Your task to perform on an android device: toggle priority inbox in the gmail app Image 0: 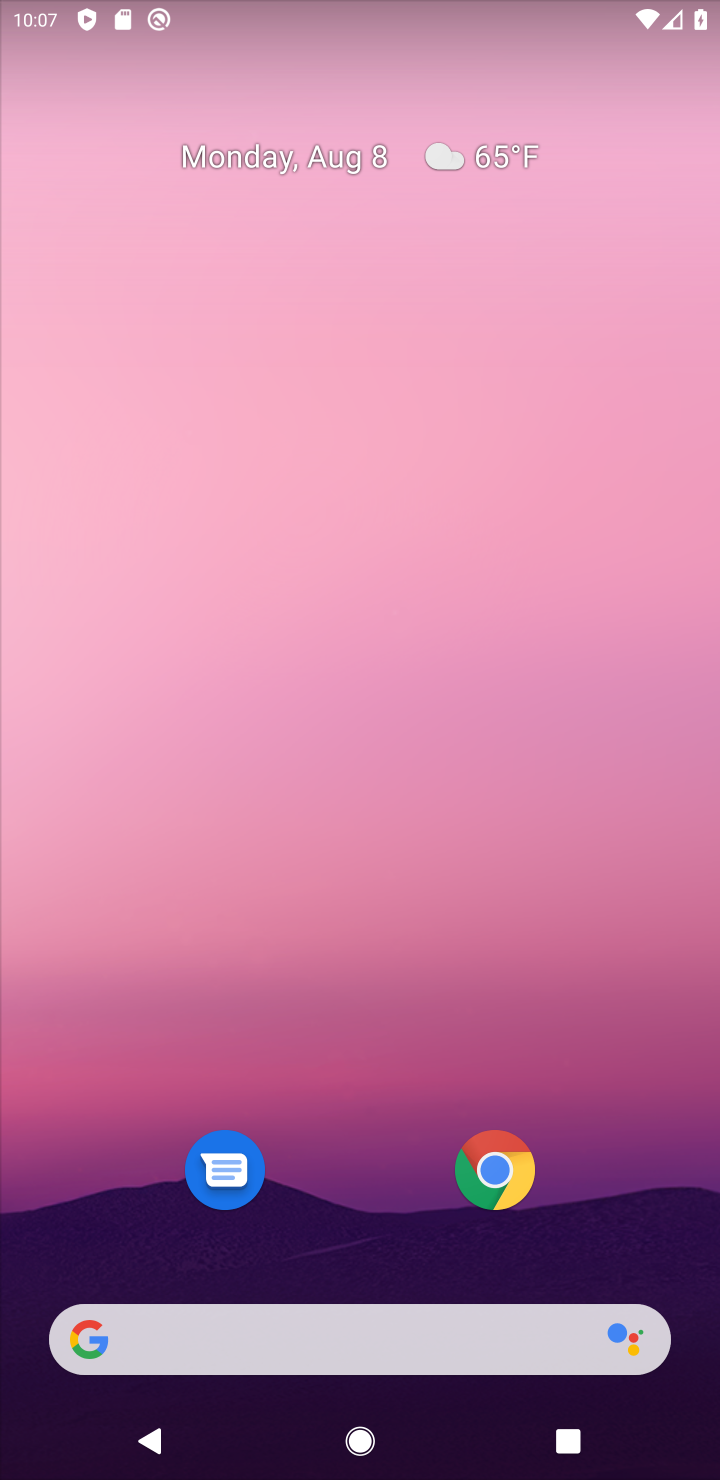
Step 0: press home button
Your task to perform on an android device: toggle priority inbox in the gmail app Image 1: 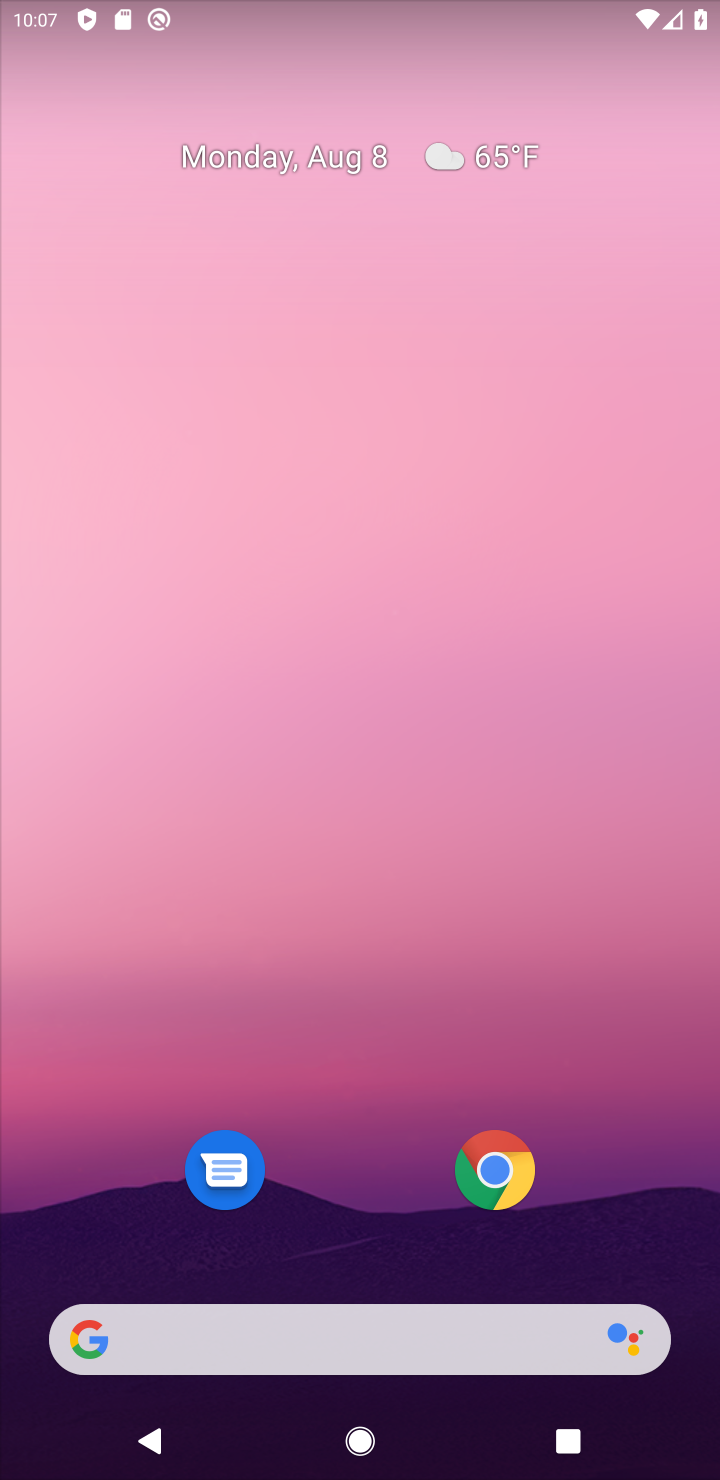
Step 1: drag from (333, 1268) to (250, 297)
Your task to perform on an android device: toggle priority inbox in the gmail app Image 2: 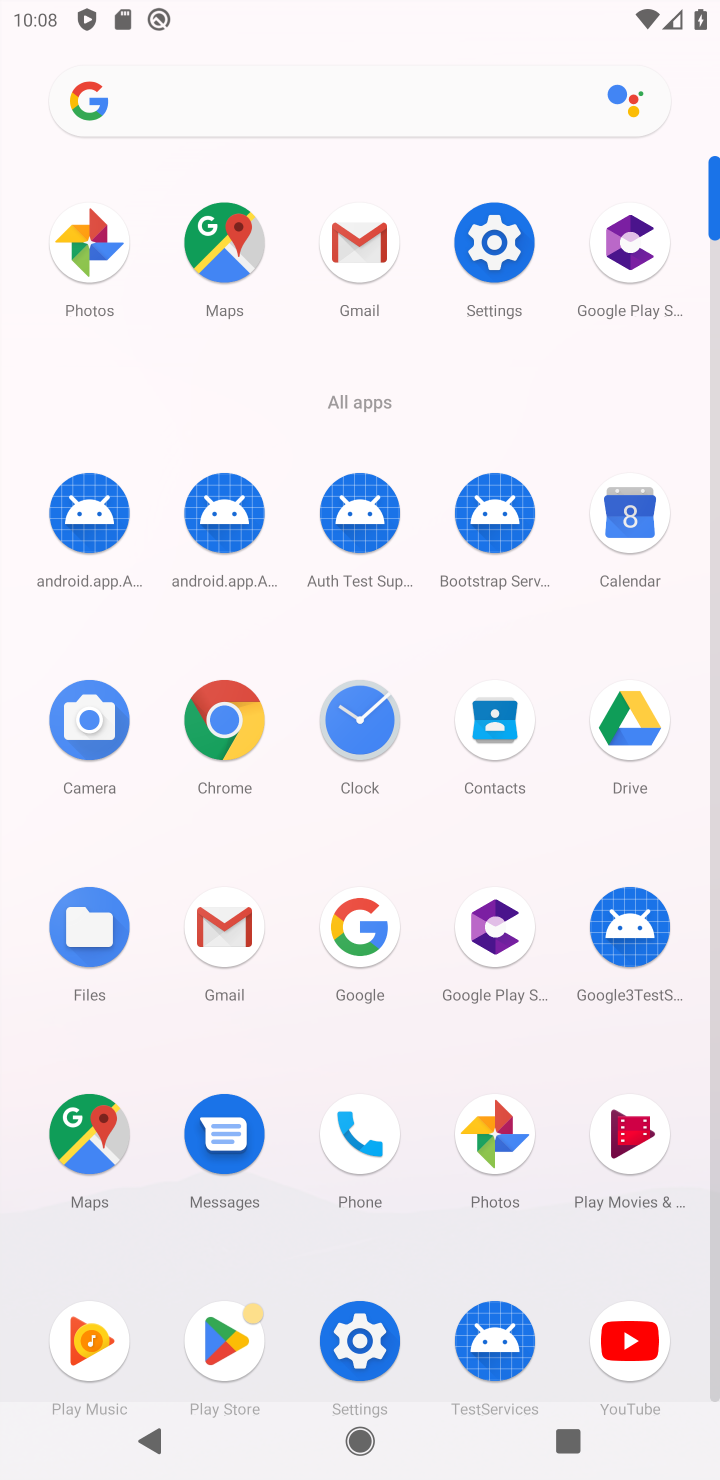
Step 2: click (369, 240)
Your task to perform on an android device: toggle priority inbox in the gmail app Image 3: 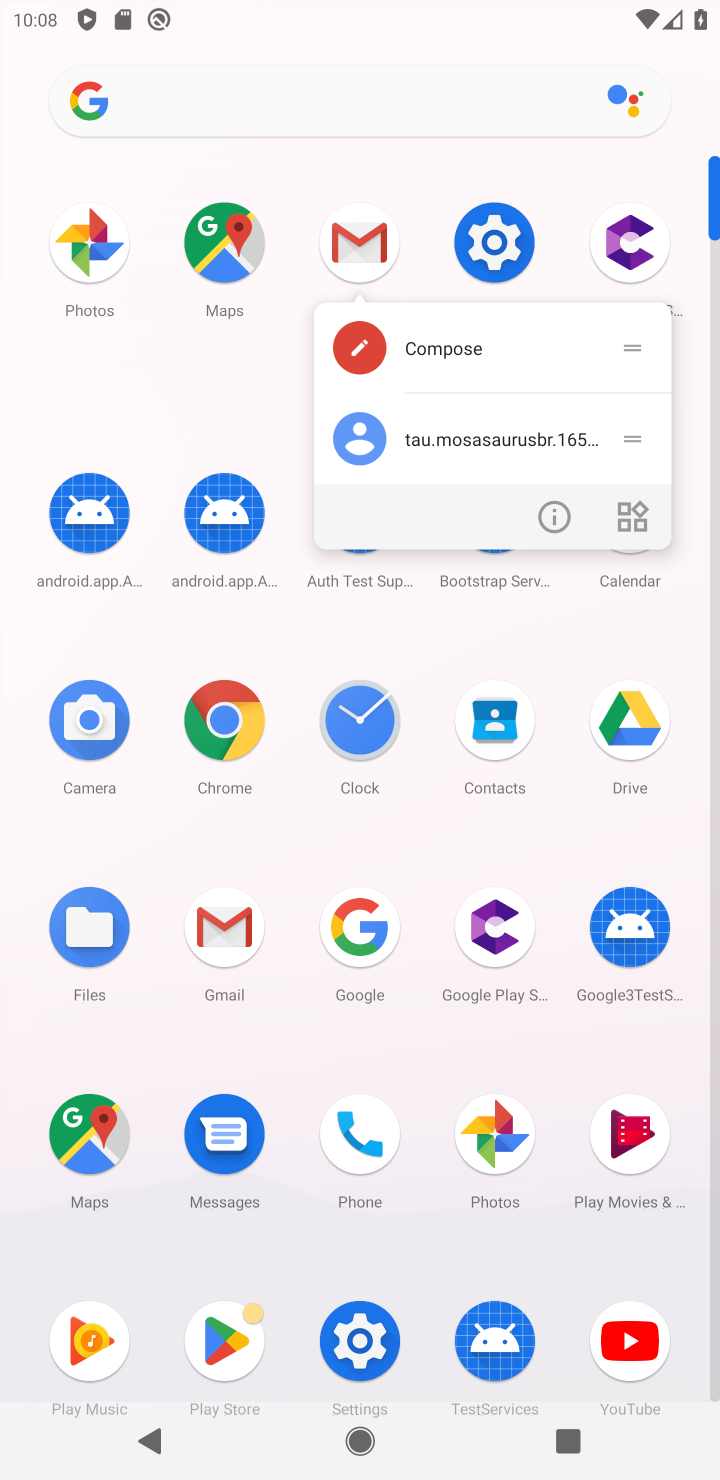
Step 3: click (357, 232)
Your task to perform on an android device: toggle priority inbox in the gmail app Image 4: 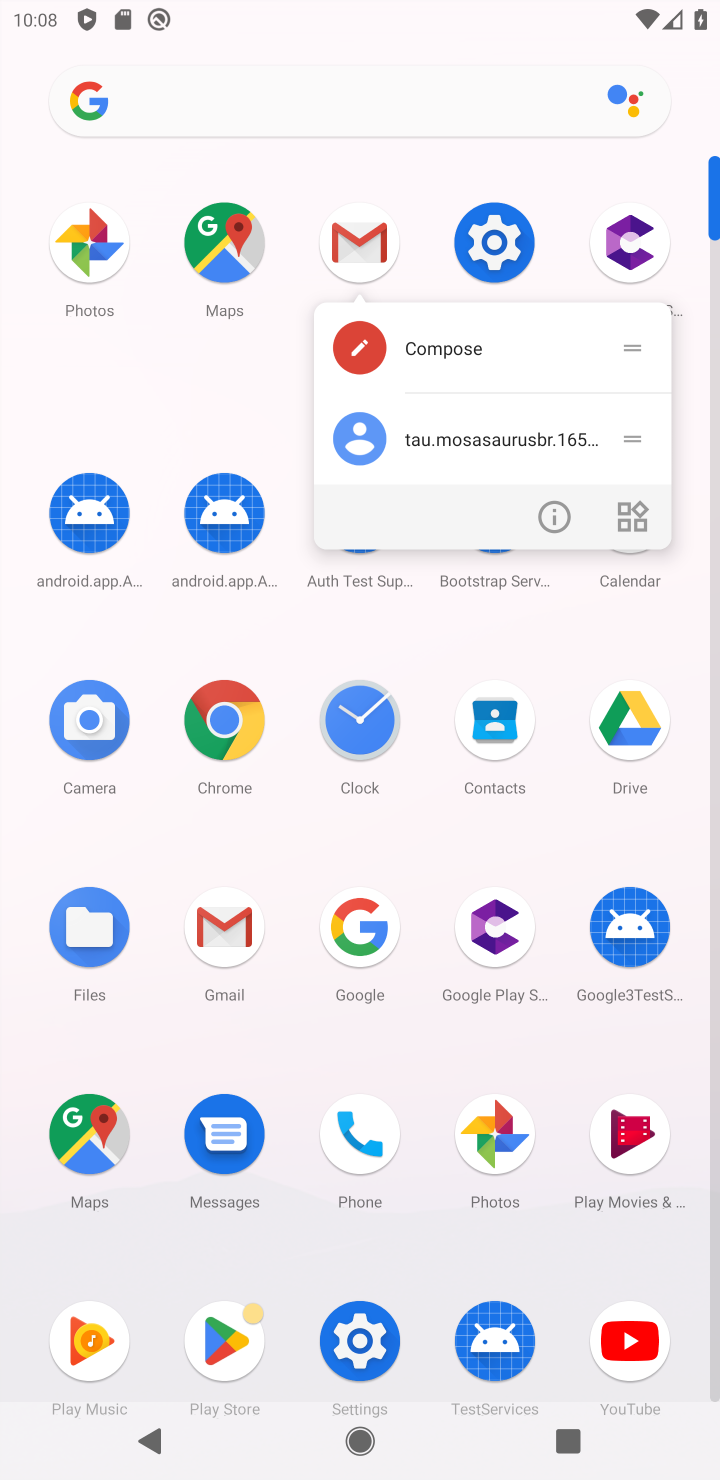
Step 4: click (351, 236)
Your task to perform on an android device: toggle priority inbox in the gmail app Image 5: 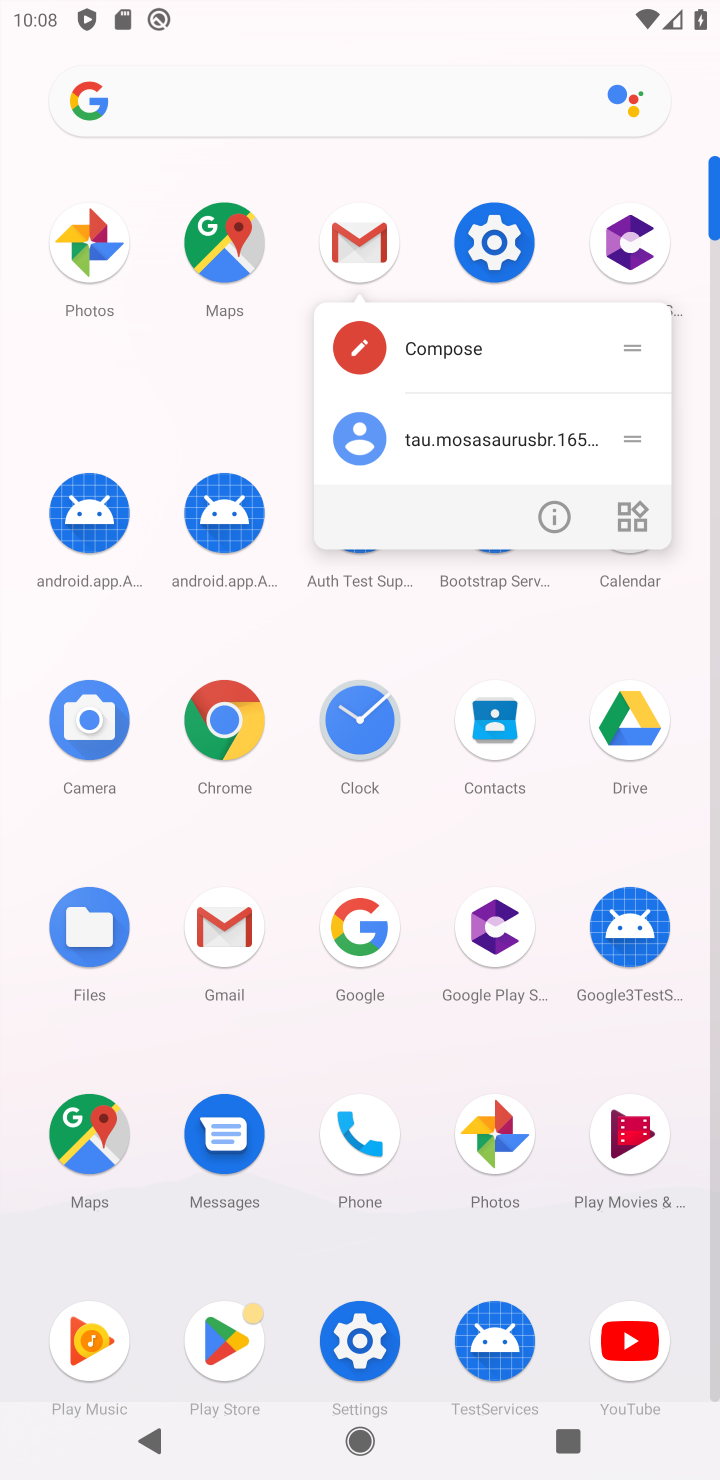
Step 5: click (204, 954)
Your task to perform on an android device: toggle priority inbox in the gmail app Image 6: 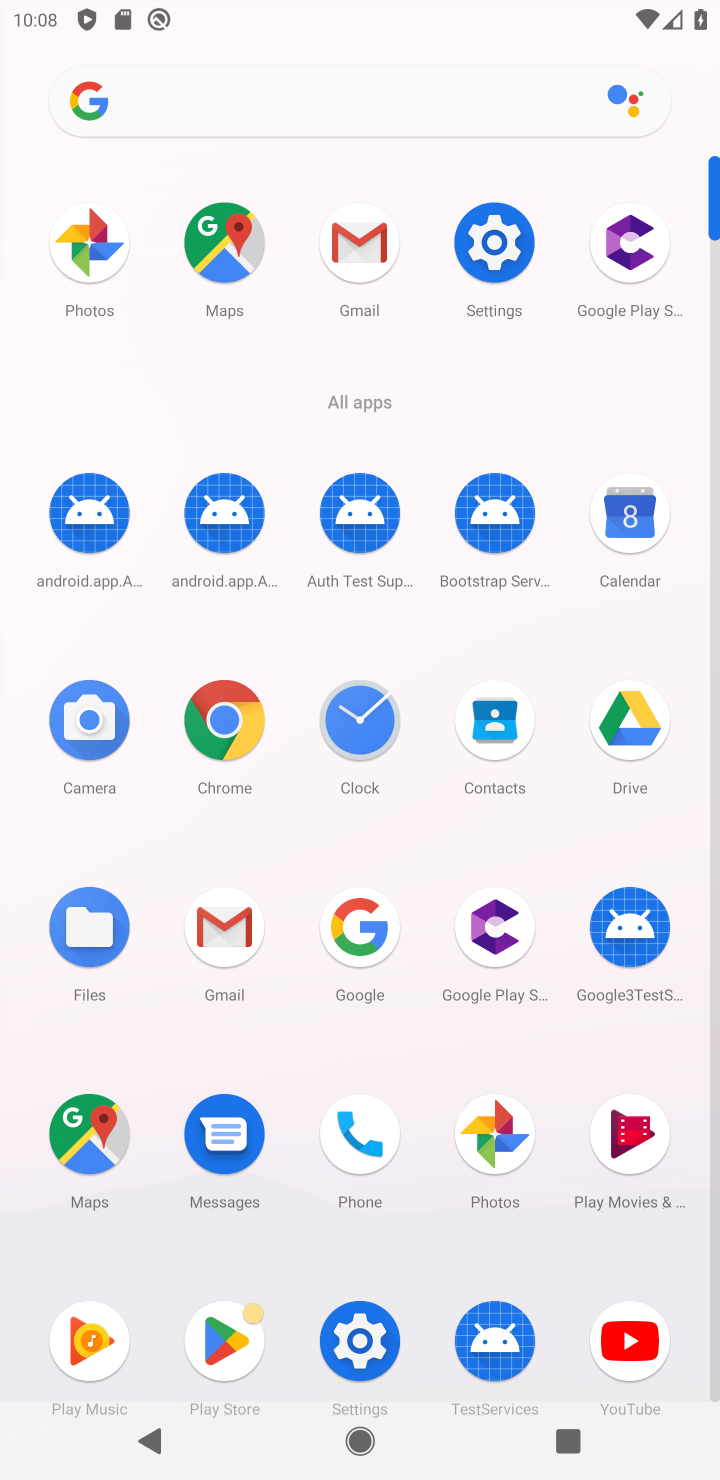
Step 6: click (240, 915)
Your task to perform on an android device: toggle priority inbox in the gmail app Image 7: 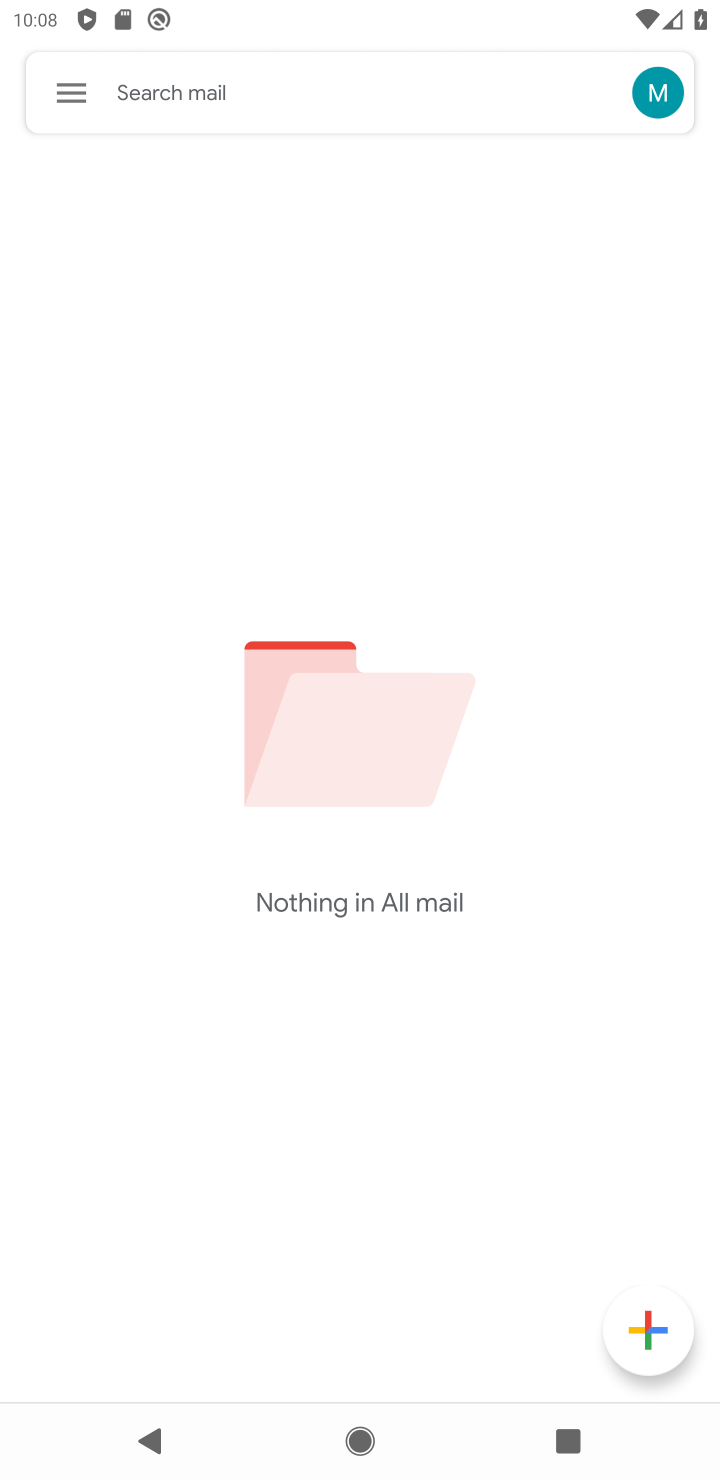
Step 7: click (84, 78)
Your task to perform on an android device: toggle priority inbox in the gmail app Image 8: 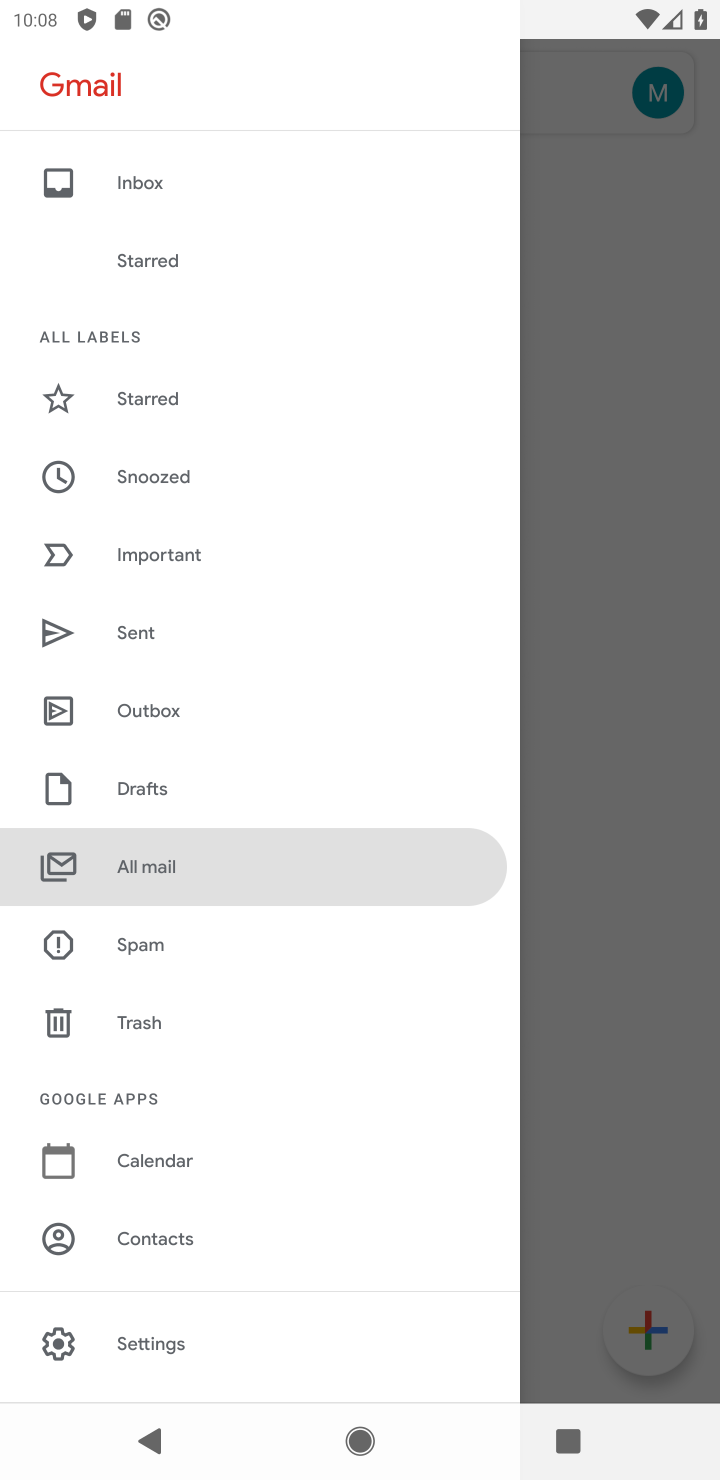
Step 8: click (146, 1346)
Your task to perform on an android device: toggle priority inbox in the gmail app Image 9: 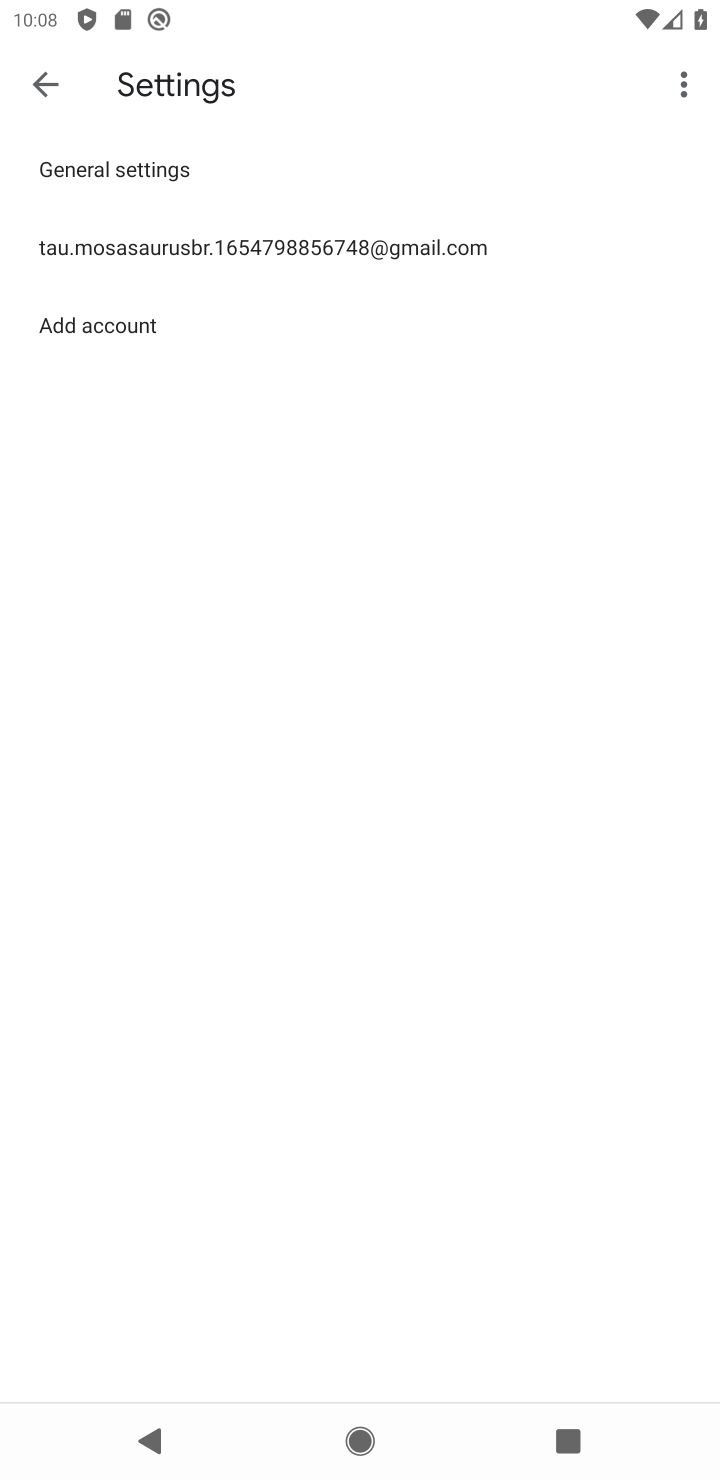
Step 9: click (193, 245)
Your task to perform on an android device: toggle priority inbox in the gmail app Image 10: 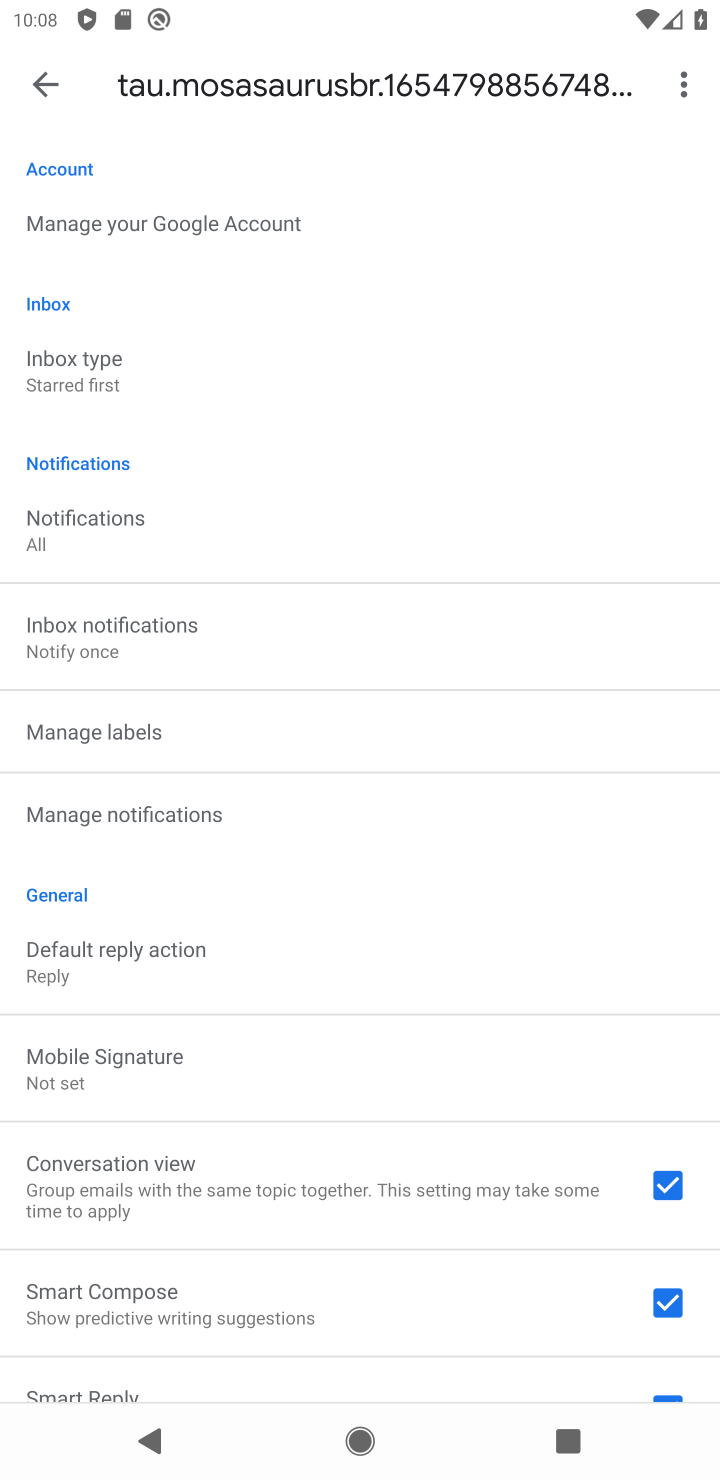
Step 10: click (104, 369)
Your task to perform on an android device: toggle priority inbox in the gmail app Image 11: 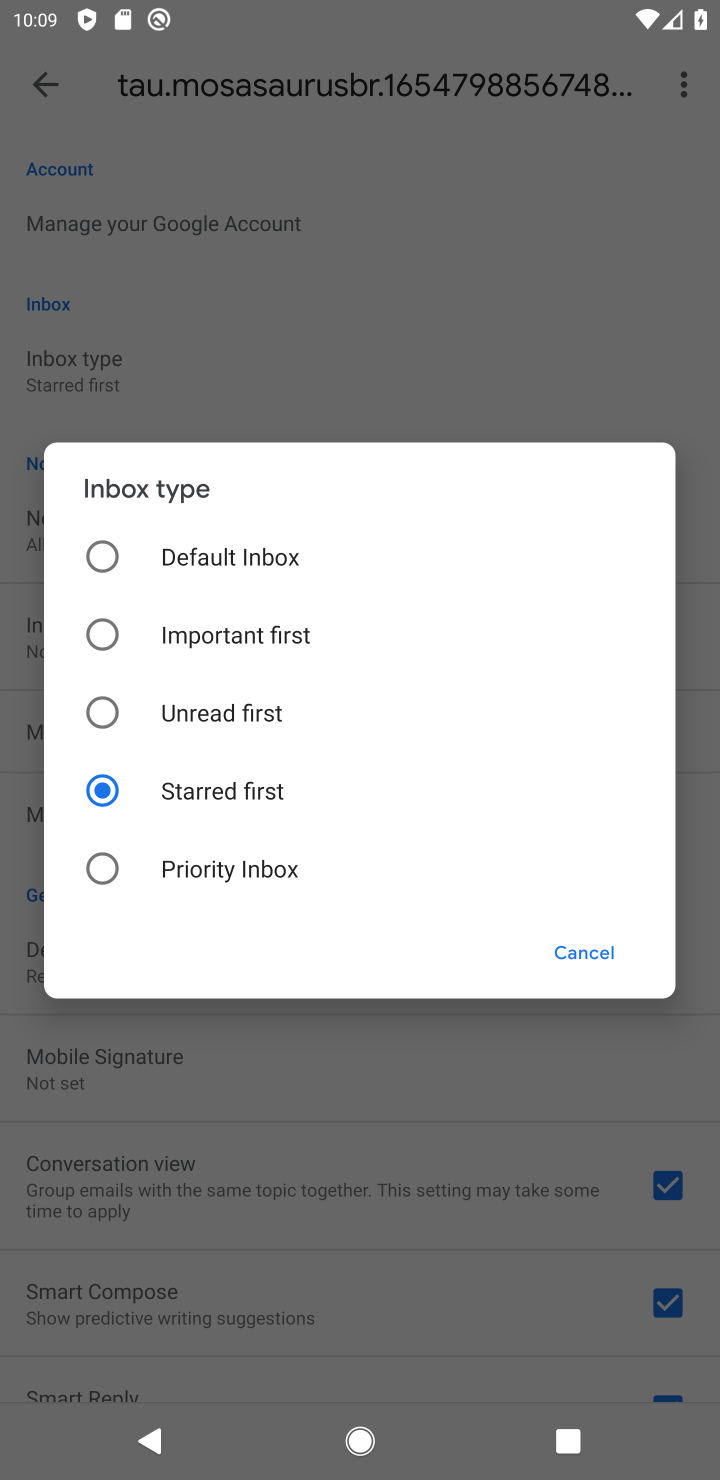
Step 11: click (106, 873)
Your task to perform on an android device: toggle priority inbox in the gmail app Image 12: 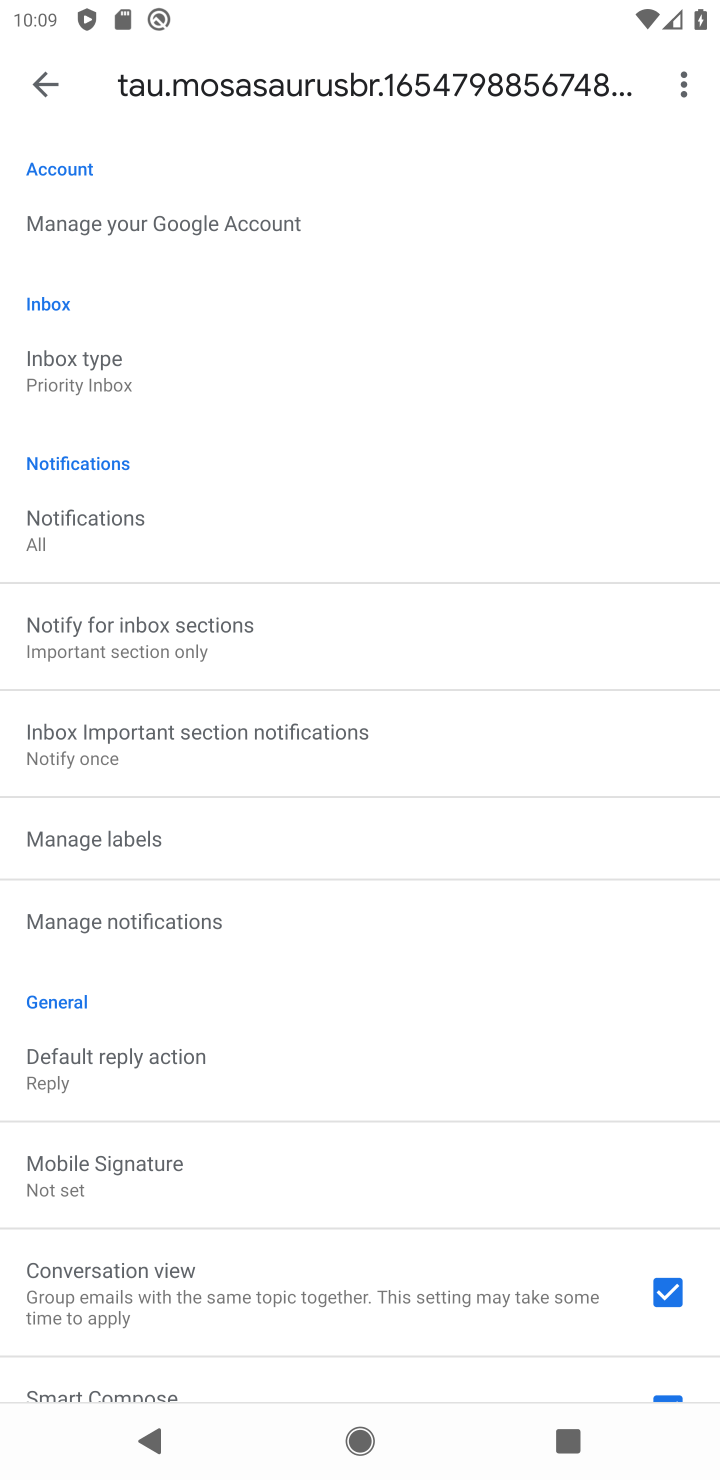
Step 12: task complete